Your task to perform on an android device: What is the news today? Image 0: 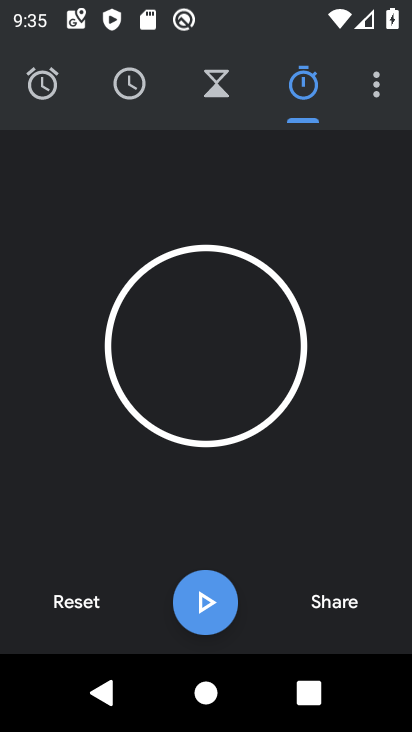
Step 0: drag from (253, 680) to (137, 116)
Your task to perform on an android device: What is the news today? Image 1: 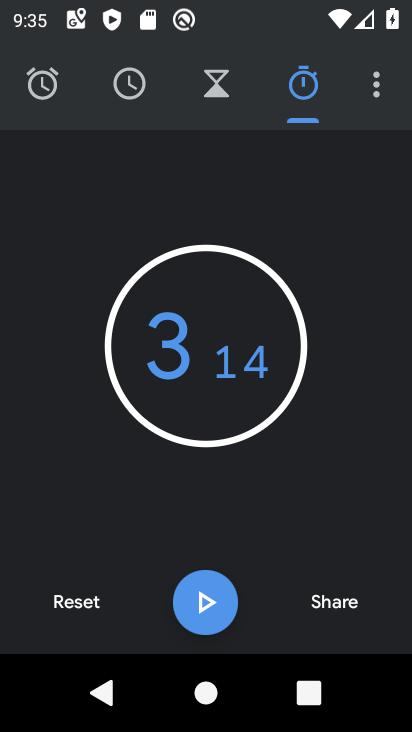
Step 1: press back button
Your task to perform on an android device: What is the news today? Image 2: 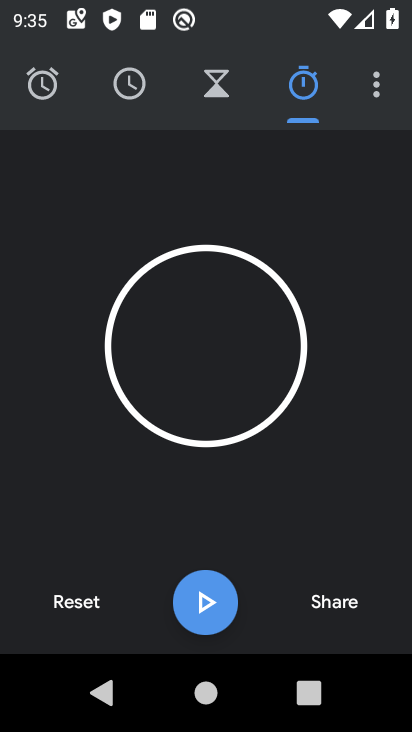
Step 2: press back button
Your task to perform on an android device: What is the news today? Image 3: 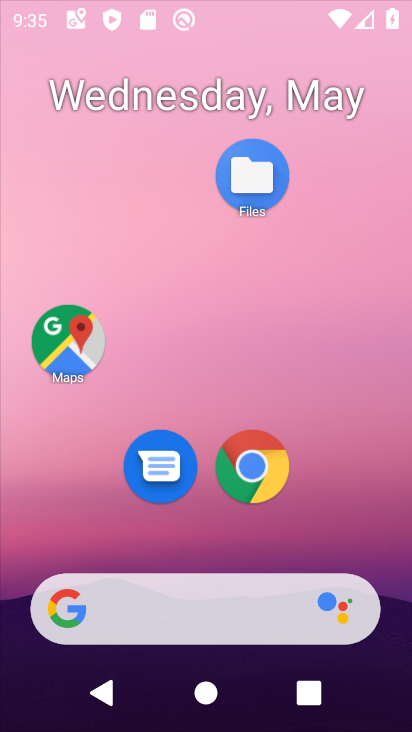
Step 3: press back button
Your task to perform on an android device: What is the news today? Image 4: 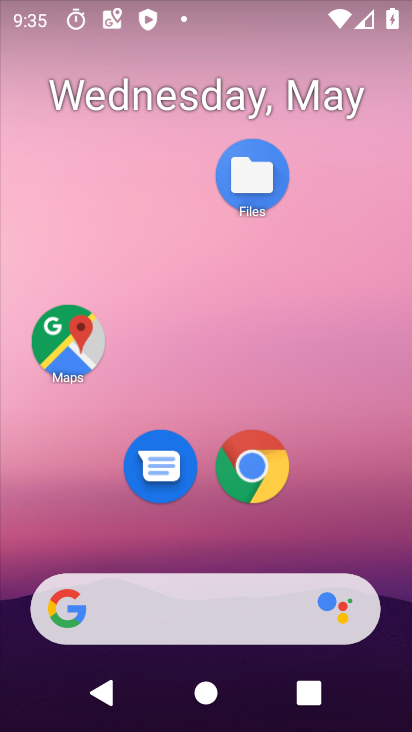
Step 4: drag from (4, 231) to (402, 284)
Your task to perform on an android device: What is the news today? Image 5: 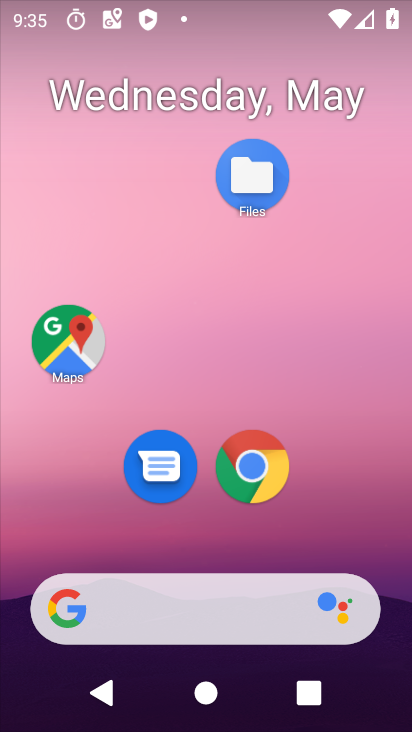
Step 5: drag from (4, 201) to (372, 422)
Your task to perform on an android device: What is the news today? Image 6: 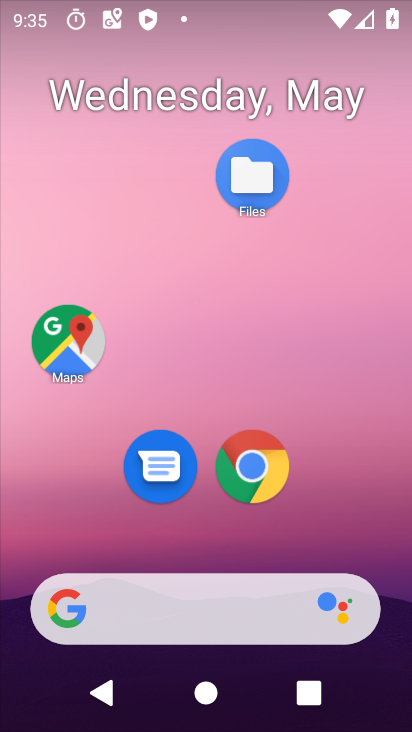
Step 6: drag from (9, 194) to (408, 468)
Your task to perform on an android device: What is the news today? Image 7: 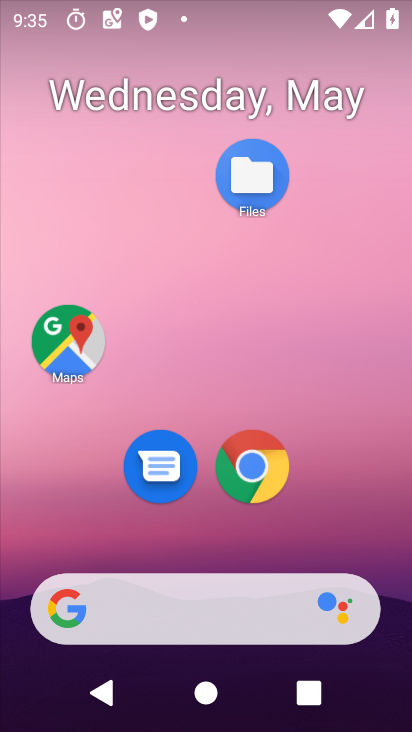
Step 7: drag from (390, 457) to (311, 404)
Your task to perform on an android device: What is the news today? Image 8: 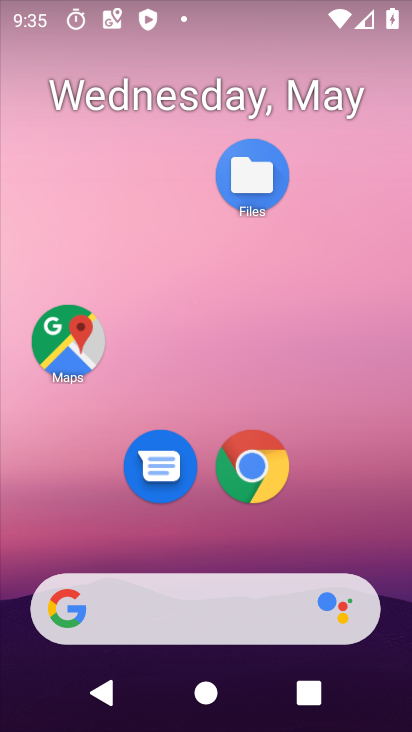
Step 8: drag from (176, 271) to (341, 349)
Your task to perform on an android device: What is the news today? Image 9: 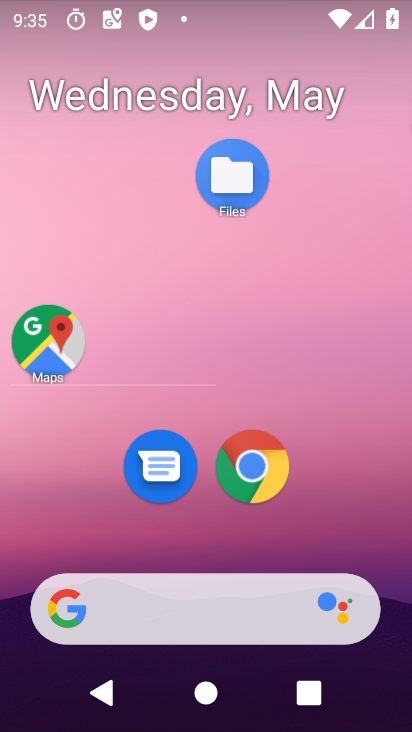
Step 9: drag from (60, 203) to (364, 357)
Your task to perform on an android device: What is the news today? Image 10: 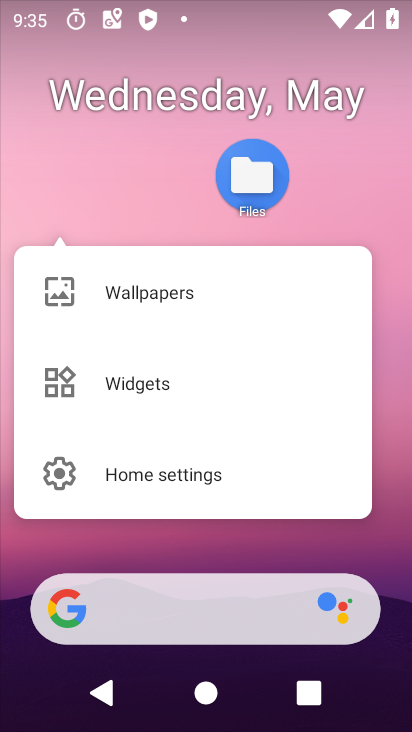
Step 10: drag from (260, 328) to (395, 371)
Your task to perform on an android device: What is the news today? Image 11: 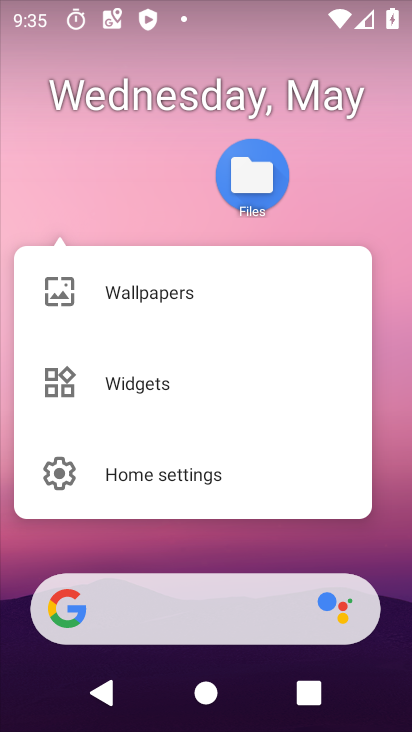
Step 11: click (131, 178)
Your task to perform on an android device: What is the news today? Image 12: 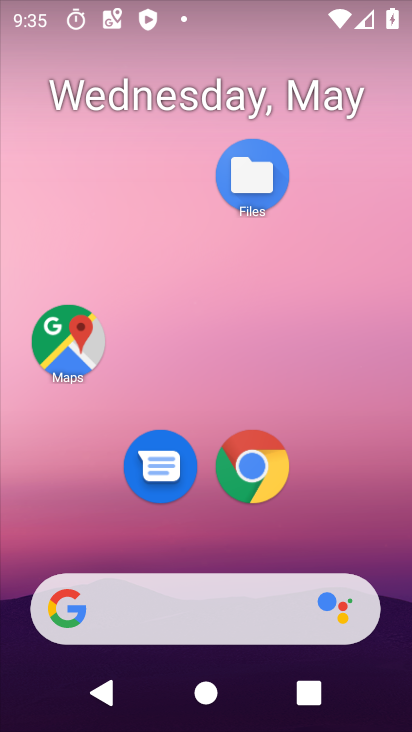
Step 12: drag from (2, 180) to (298, 301)
Your task to perform on an android device: What is the news today? Image 13: 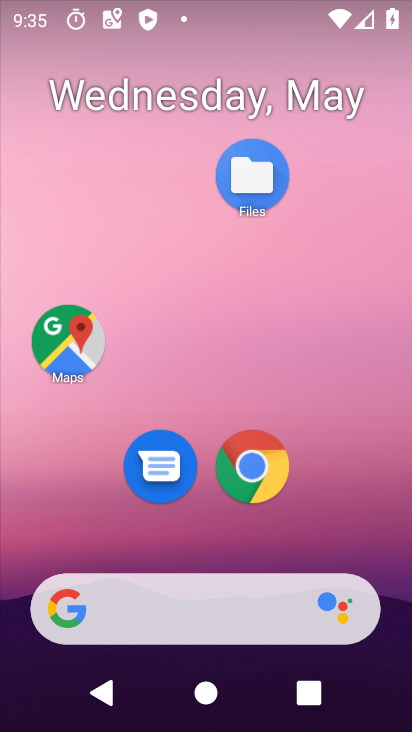
Step 13: drag from (2, 201) to (285, 361)
Your task to perform on an android device: What is the news today? Image 14: 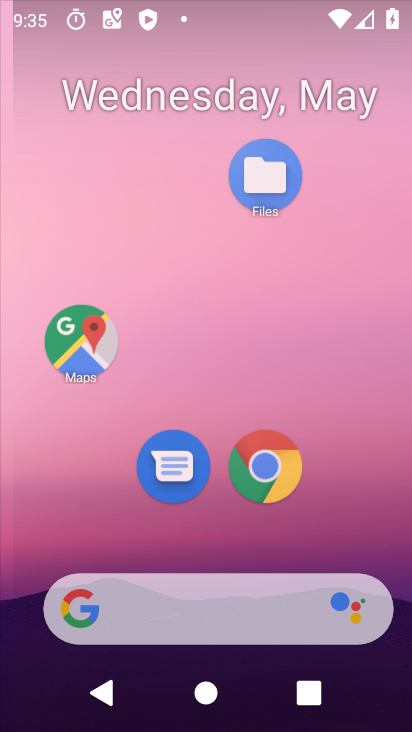
Step 14: drag from (27, 209) to (394, 383)
Your task to perform on an android device: What is the news today? Image 15: 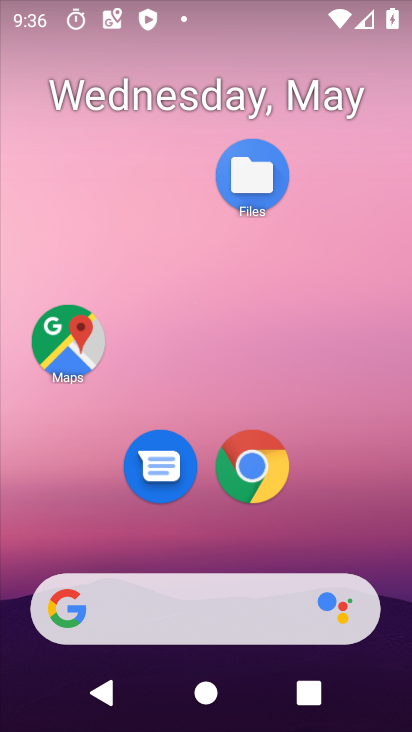
Step 15: drag from (13, 186) to (348, 456)
Your task to perform on an android device: What is the news today? Image 16: 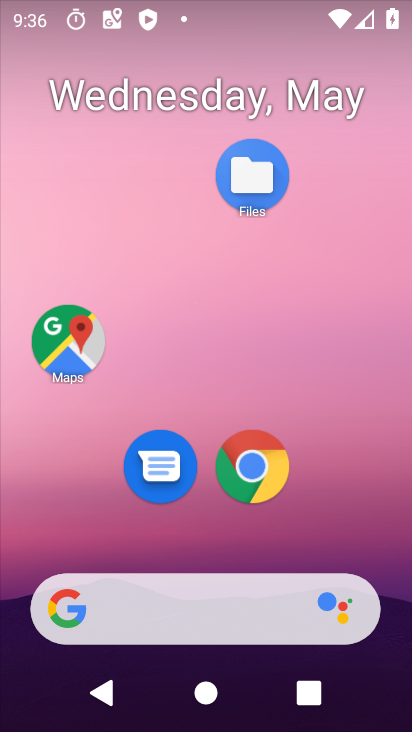
Step 16: drag from (12, 216) to (317, 360)
Your task to perform on an android device: What is the news today? Image 17: 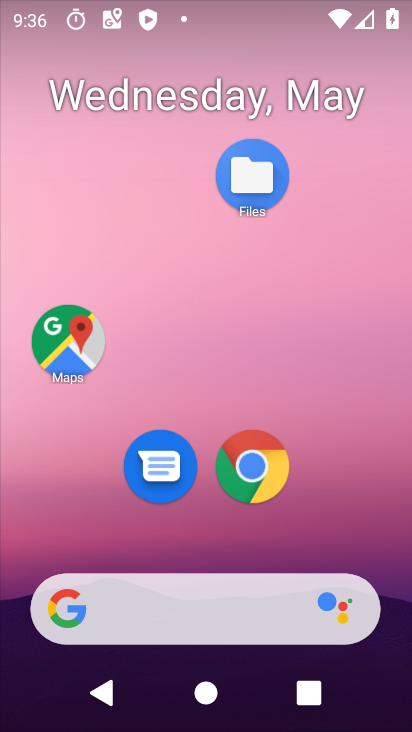
Step 17: drag from (262, 310) to (279, 364)
Your task to perform on an android device: What is the news today? Image 18: 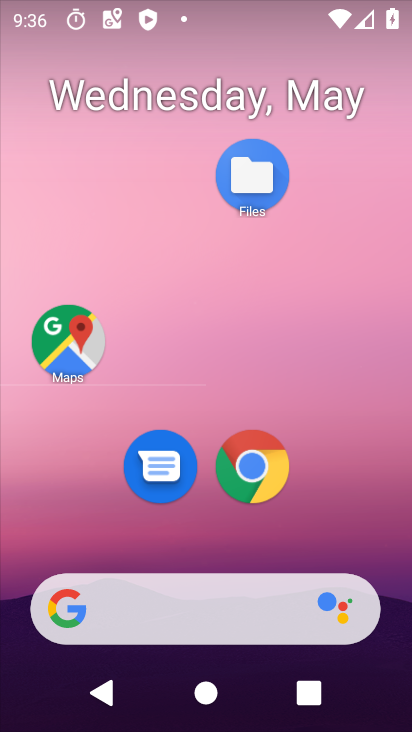
Step 18: drag from (64, 243) to (330, 403)
Your task to perform on an android device: What is the news today? Image 19: 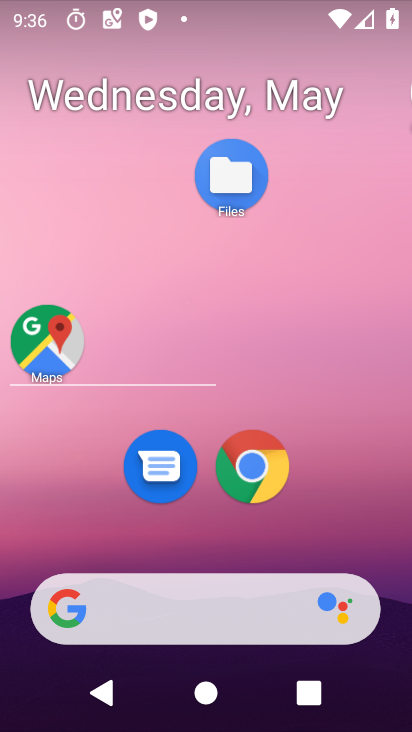
Step 19: drag from (118, 253) to (381, 462)
Your task to perform on an android device: What is the news today? Image 20: 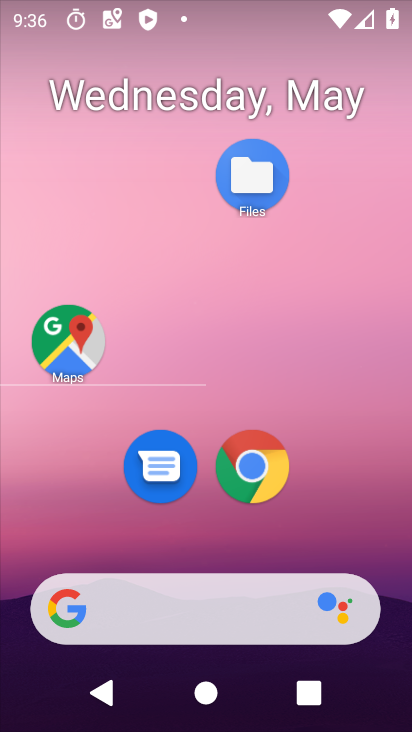
Step 20: drag from (54, 238) to (393, 419)
Your task to perform on an android device: What is the news today? Image 21: 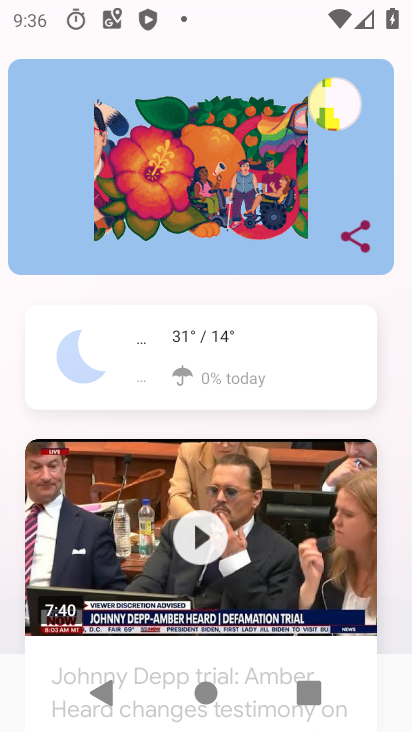
Step 21: drag from (31, 227) to (342, 437)
Your task to perform on an android device: What is the news today? Image 22: 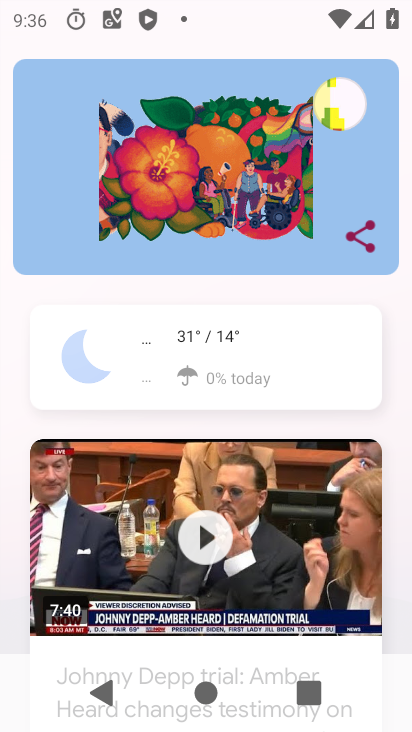
Step 22: drag from (158, 474) to (166, 253)
Your task to perform on an android device: What is the news today? Image 23: 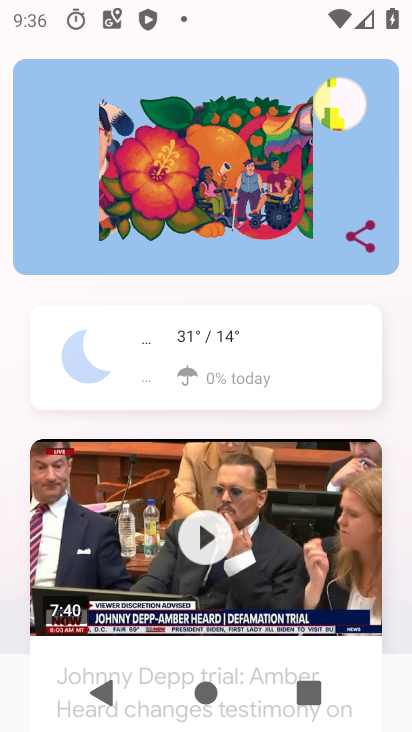
Step 23: drag from (207, 420) to (224, 57)
Your task to perform on an android device: What is the news today? Image 24: 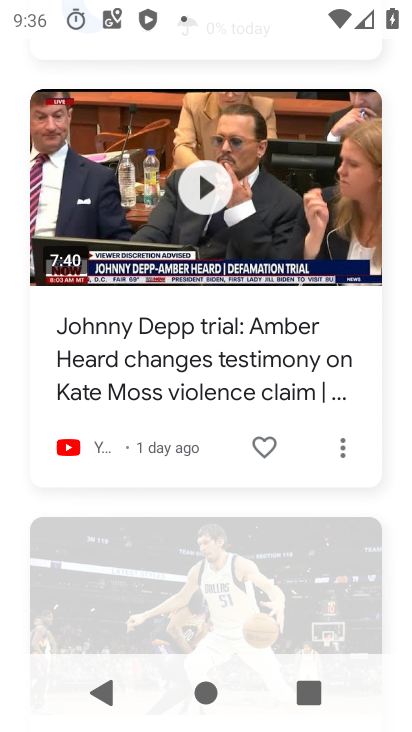
Step 24: drag from (188, 443) to (185, 18)
Your task to perform on an android device: What is the news today? Image 25: 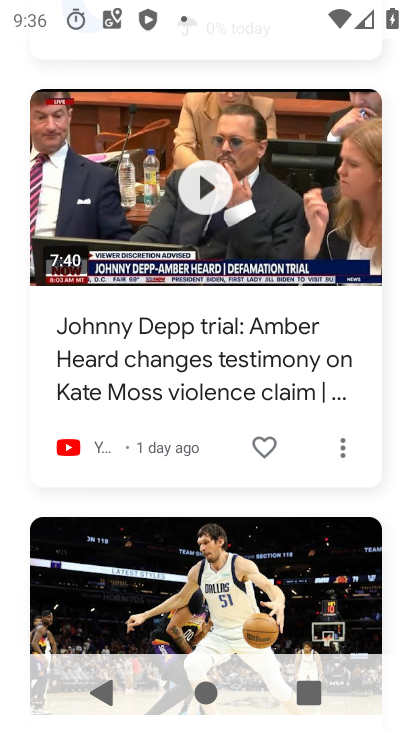
Step 25: drag from (232, 503) to (180, 83)
Your task to perform on an android device: What is the news today? Image 26: 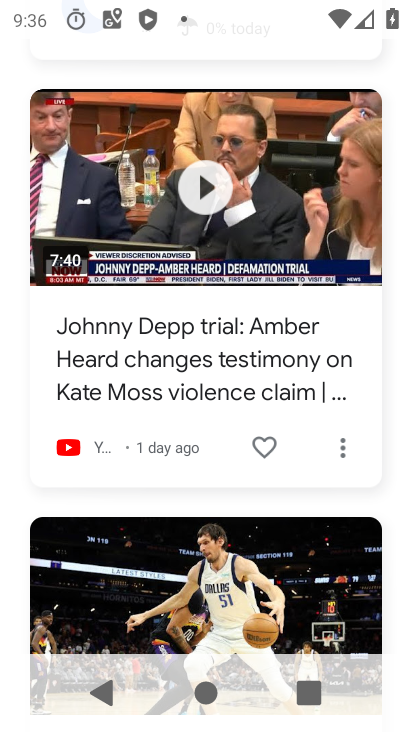
Step 26: drag from (179, 438) to (162, 12)
Your task to perform on an android device: What is the news today? Image 27: 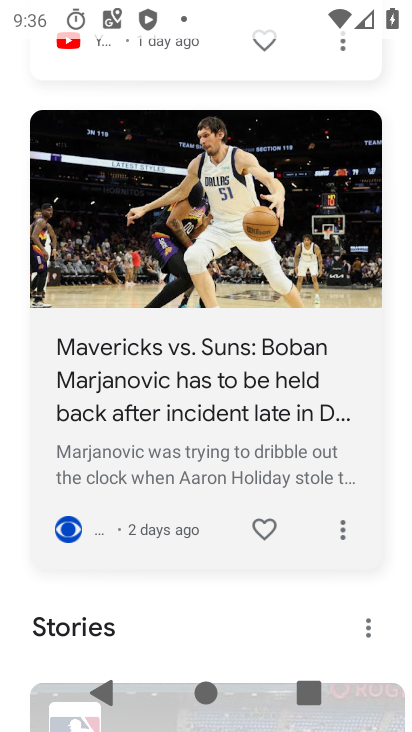
Step 27: drag from (164, 510) to (196, 133)
Your task to perform on an android device: What is the news today? Image 28: 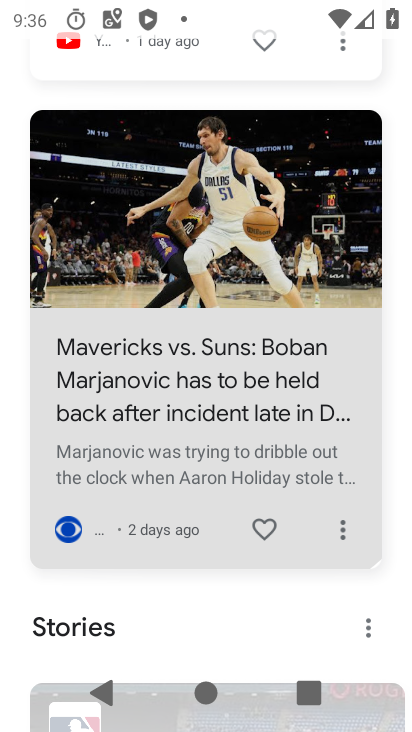
Step 28: drag from (233, 547) to (210, 115)
Your task to perform on an android device: What is the news today? Image 29: 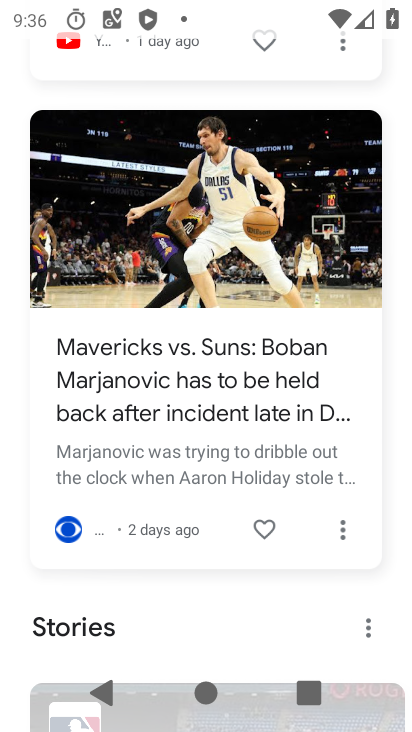
Step 29: drag from (233, 488) to (226, 170)
Your task to perform on an android device: What is the news today? Image 30: 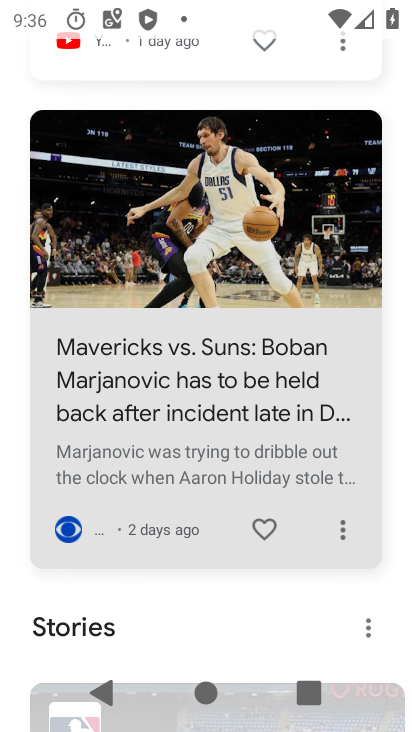
Step 30: drag from (239, 538) to (239, 178)
Your task to perform on an android device: What is the news today? Image 31: 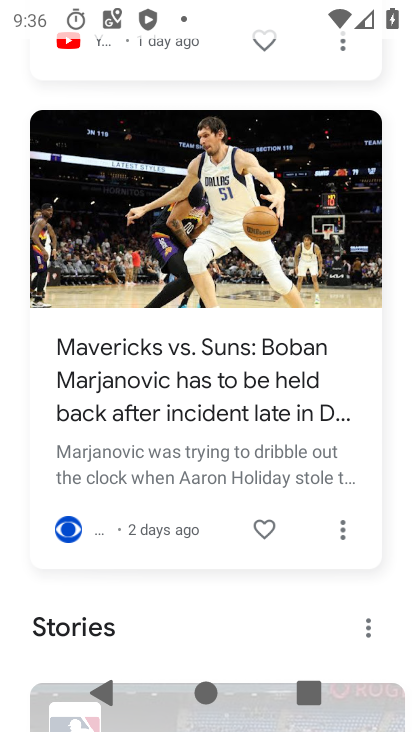
Step 31: drag from (227, 564) to (236, 187)
Your task to perform on an android device: What is the news today? Image 32: 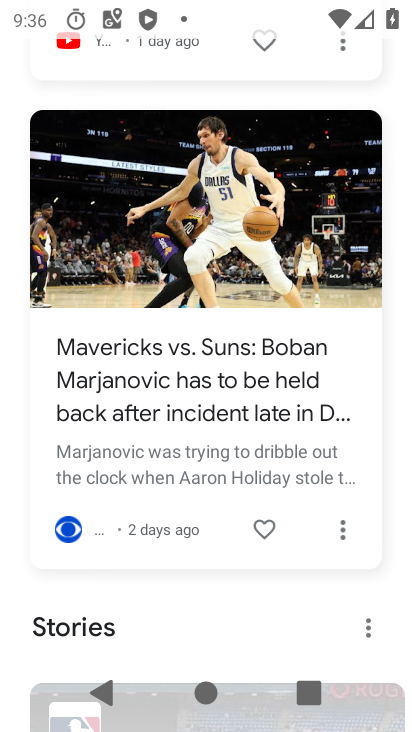
Step 32: drag from (203, 517) to (203, 178)
Your task to perform on an android device: What is the news today? Image 33: 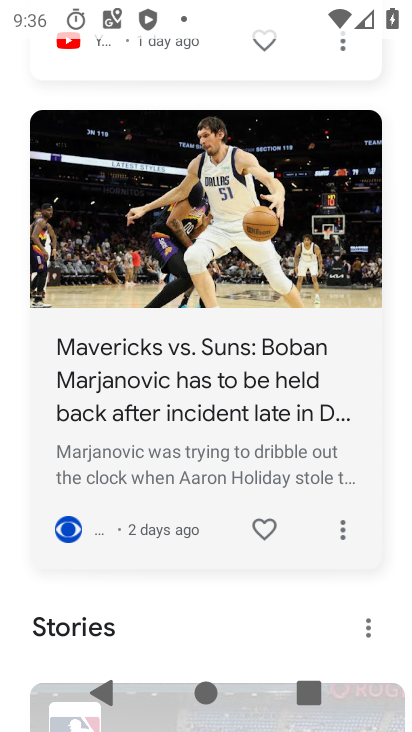
Step 33: drag from (253, 513) to (221, 253)
Your task to perform on an android device: What is the news today? Image 34: 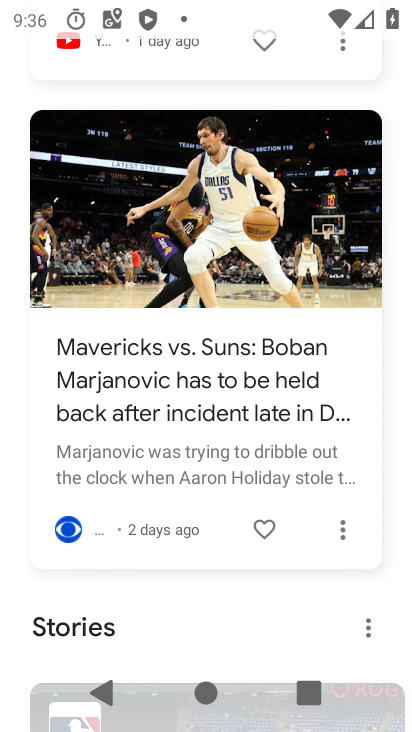
Step 34: drag from (197, 559) to (169, 205)
Your task to perform on an android device: What is the news today? Image 35: 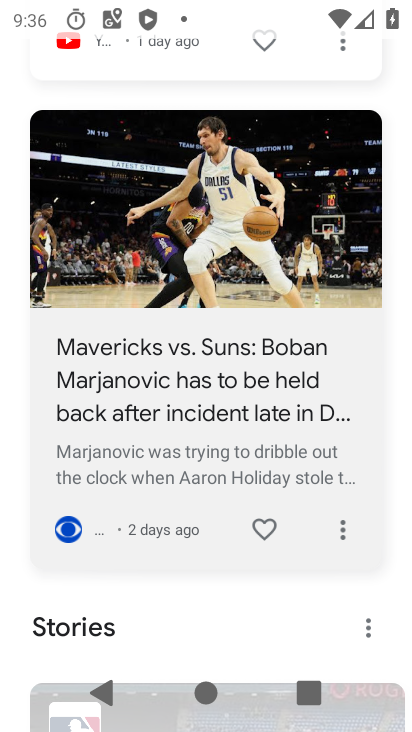
Step 35: click (192, 230)
Your task to perform on an android device: What is the news today? Image 36: 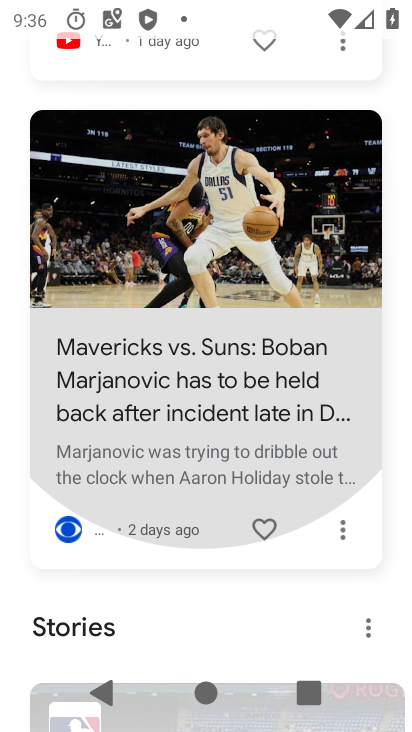
Step 36: task complete